Your task to perform on an android device: Is it going to rain this weekend? Image 0: 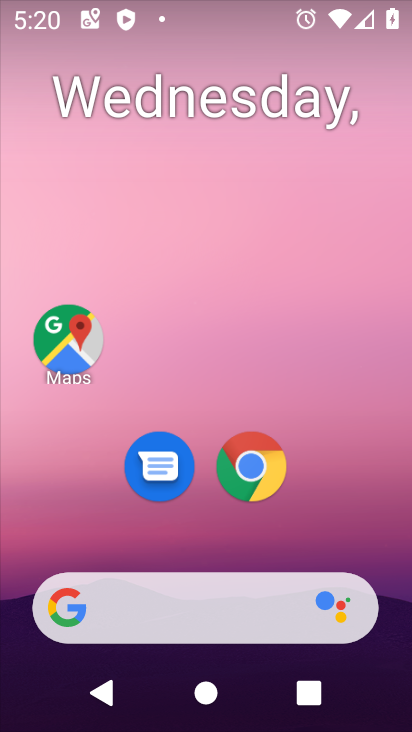
Step 0: click (263, 473)
Your task to perform on an android device: Is it going to rain this weekend? Image 1: 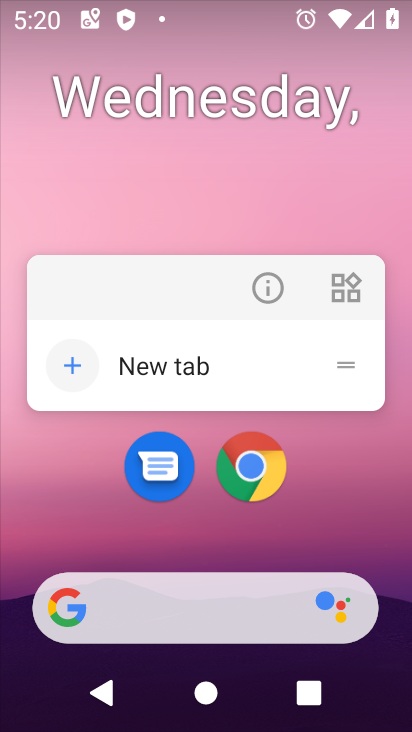
Step 1: click (263, 473)
Your task to perform on an android device: Is it going to rain this weekend? Image 2: 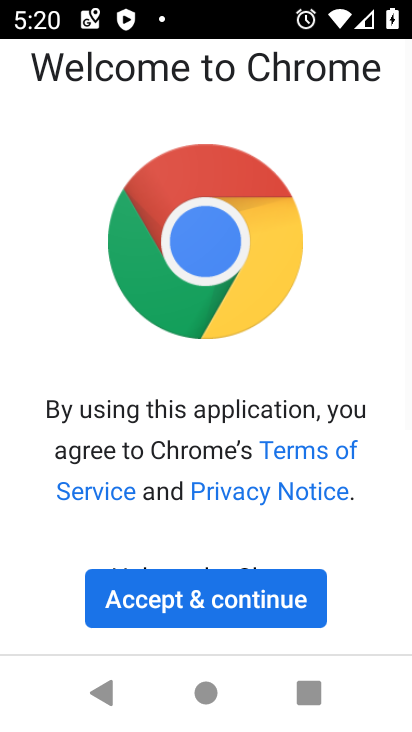
Step 2: click (263, 609)
Your task to perform on an android device: Is it going to rain this weekend? Image 3: 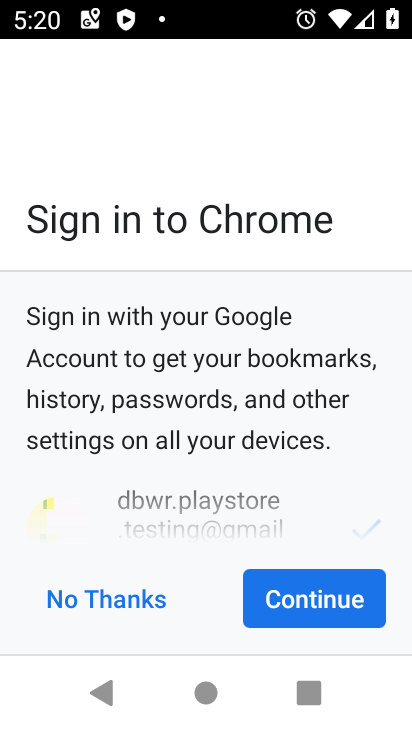
Step 3: click (286, 602)
Your task to perform on an android device: Is it going to rain this weekend? Image 4: 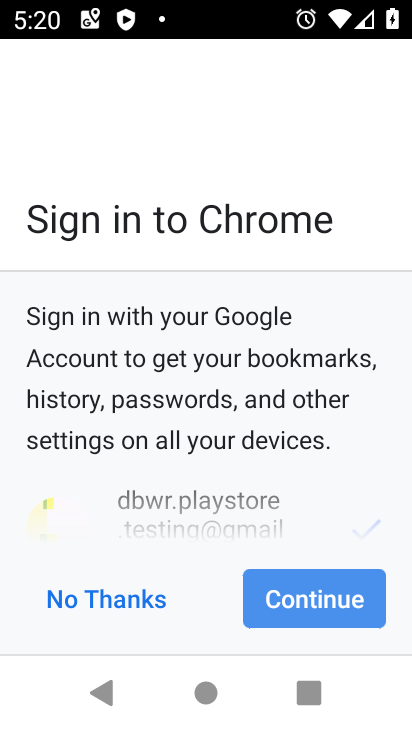
Step 4: click (286, 602)
Your task to perform on an android device: Is it going to rain this weekend? Image 5: 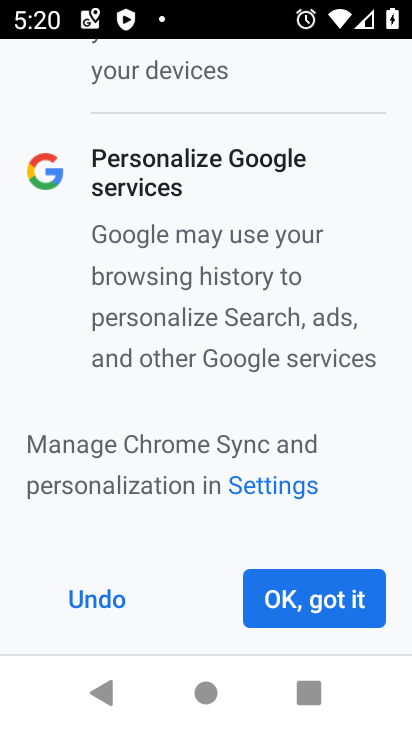
Step 5: click (286, 602)
Your task to perform on an android device: Is it going to rain this weekend? Image 6: 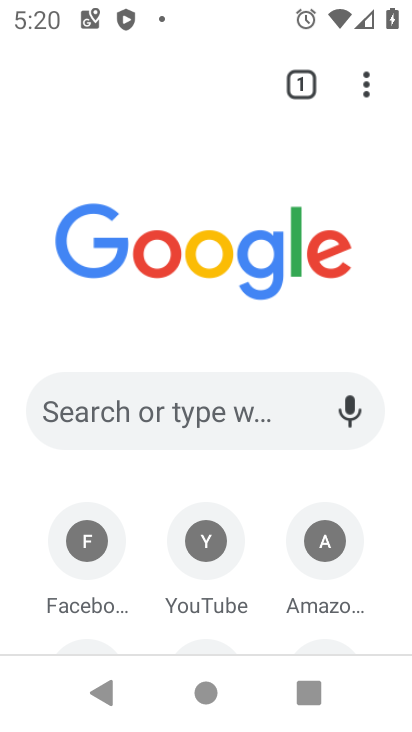
Step 6: click (208, 413)
Your task to perform on an android device: Is it going to rain this weekend? Image 7: 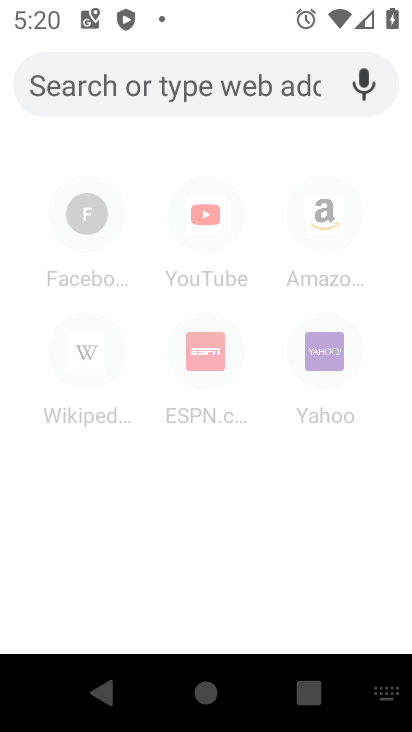
Step 7: click (180, 75)
Your task to perform on an android device: Is it going to rain this weekend? Image 8: 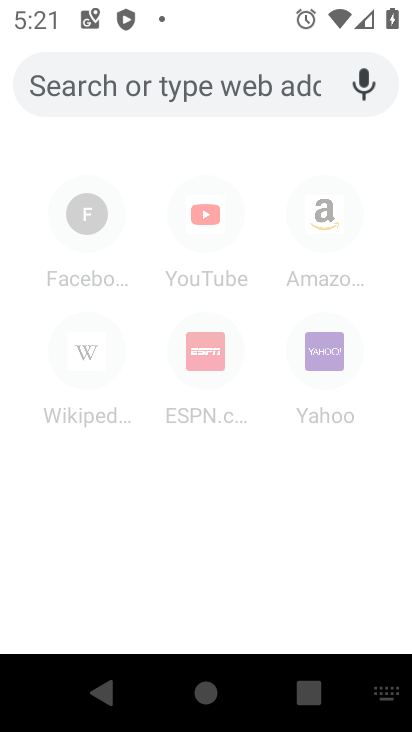
Step 8: type "is it going to rain this weekend?"
Your task to perform on an android device: Is it going to rain this weekend? Image 9: 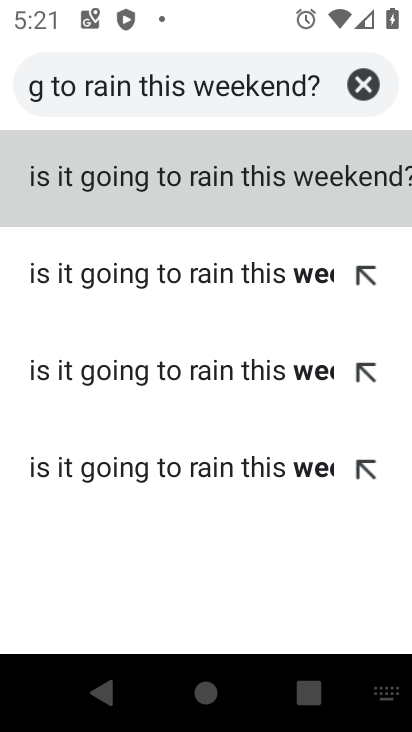
Step 9: click (105, 95)
Your task to perform on an android device: Is it going to rain this weekend? Image 10: 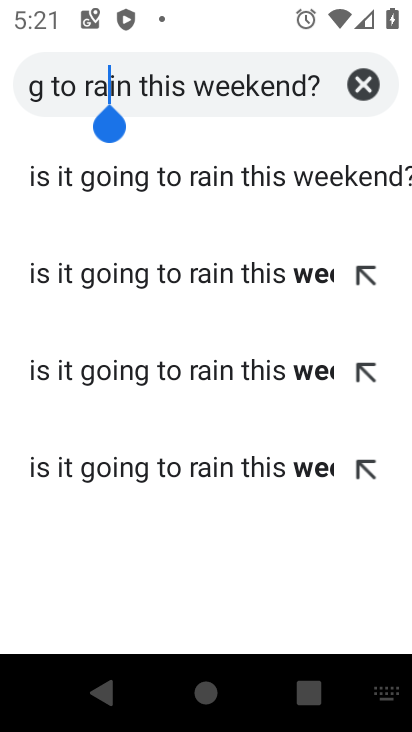
Step 10: click (175, 175)
Your task to perform on an android device: Is it going to rain this weekend? Image 11: 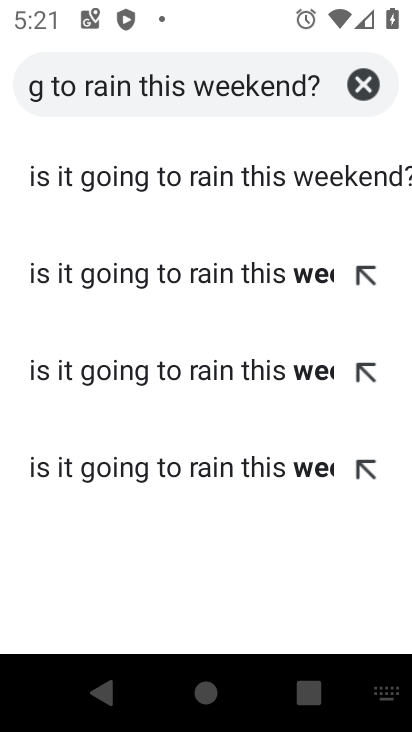
Step 11: click (338, 172)
Your task to perform on an android device: Is it going to rain this weekend? Image 12: 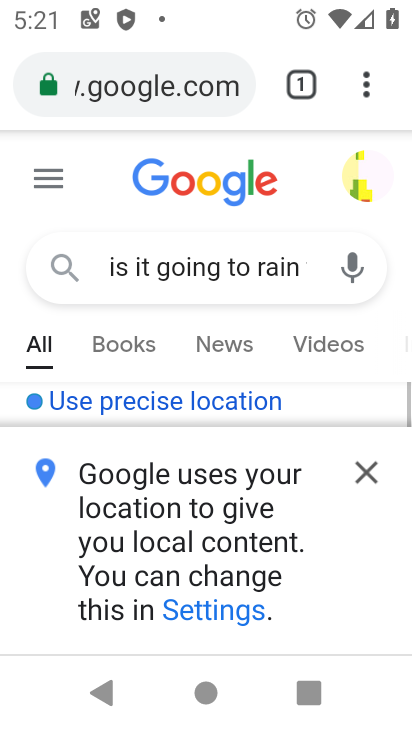
Step 12: task complete